Your task to perform on an android device: Do I have any events today? Image 0: 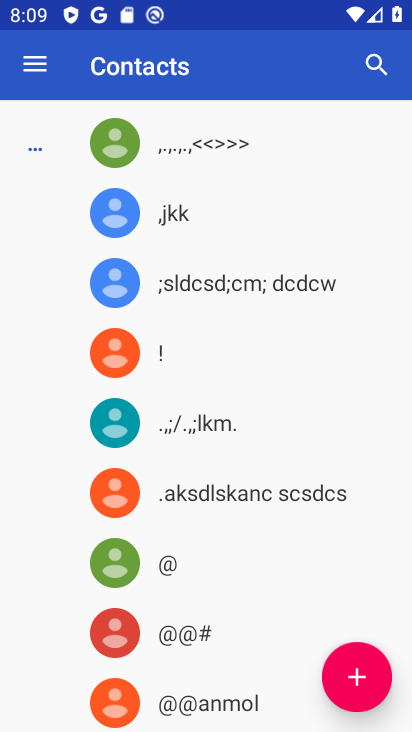
Step 0: press home button
Your task to perform on an android device: Do I have any events today? Image 1: 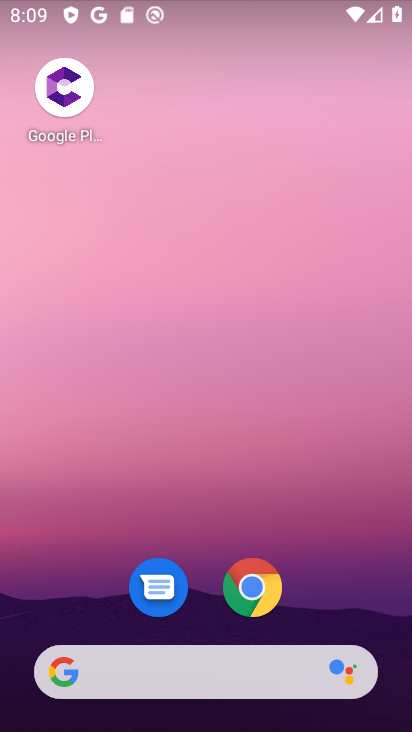
Step 1: drag from (72, 556) to (331, 123)
Your task to perform on an android device: Do I have any events today? Image 2: 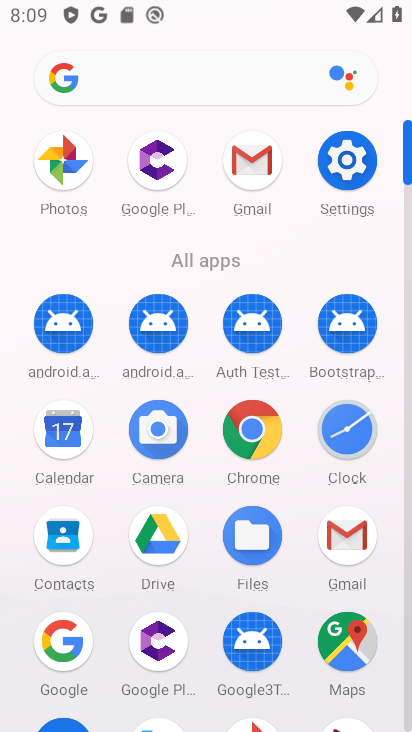
Step 2: click (63, 448)
Your task to perform on an android device: Do I have any events today? Image 3: 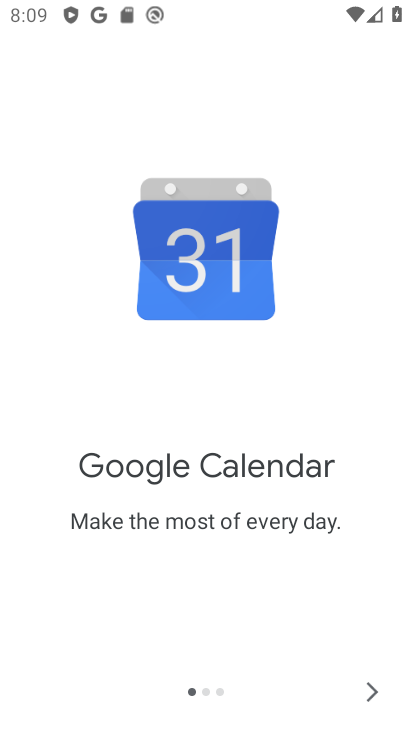
Step 3: click (376, 691)
Your task to perform on an android device: Do I have any events today? Image 4: 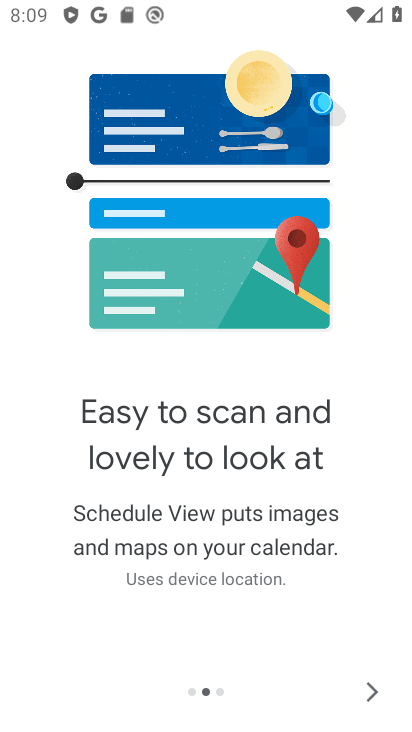
Step 4: click (376, 690)
Your task to perform on an android device: Do I have any events today? Image 5: 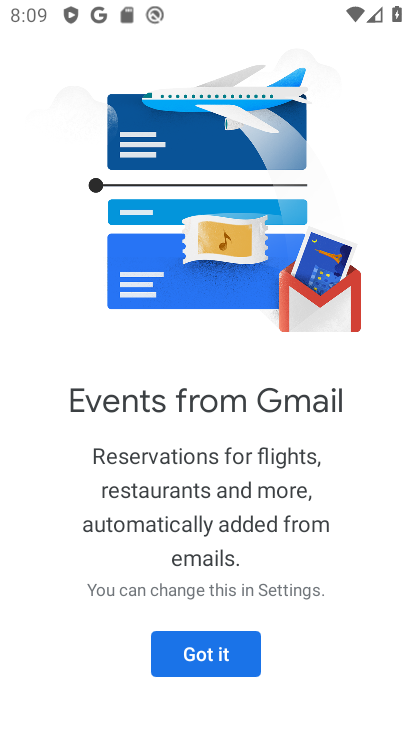
Step 5: click (247, 661)
Your task to perform on an android device: Do I have any events today? Image 6: 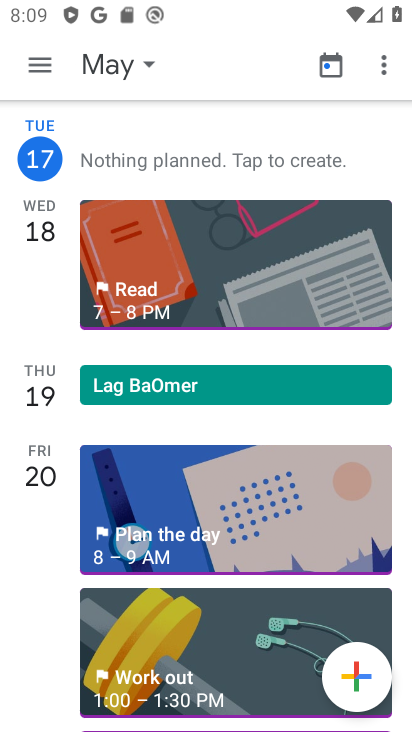
Step 6: click (40, 73)
Your task to perform on an android device: Do I have any events today? Image 7: 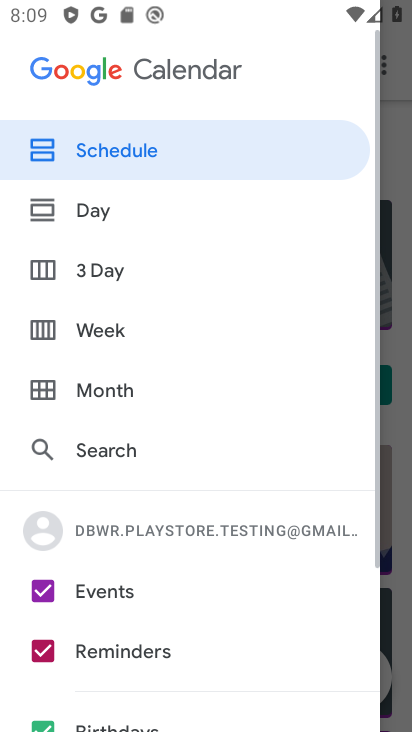
Step 7: click (397, 297)
Your task to perform on an android device: Do I have any events today? Image 8: 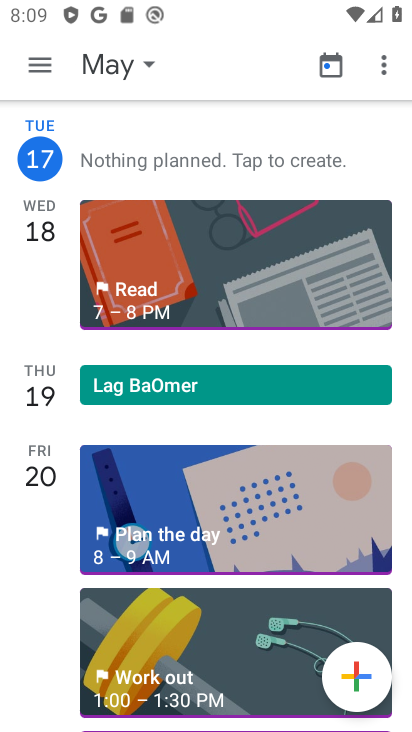
Step 8: task complete